Your task to perform on an android device: set the timer Image 0: 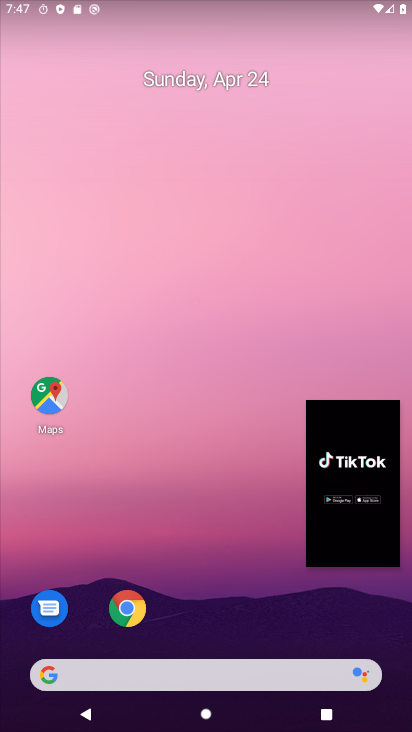
Step 0: drag from (154, 513) to (217, 106)
Your task to perform on an android device: set the timer Image 1: 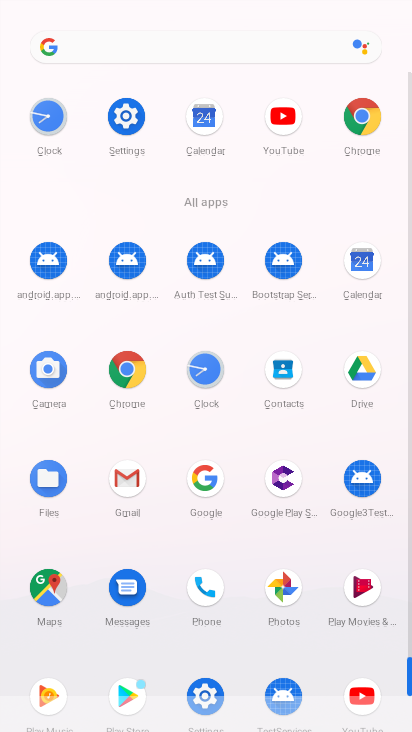
Step 1: click (204, 366)
Your task to perform on an android device: set the timer Image 2: 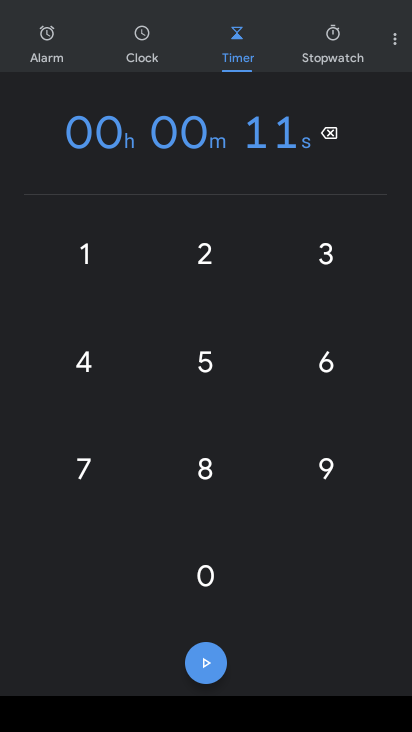
Step 2: click (332, 130)
Your task to perform on an android device: set the timer Image 3: 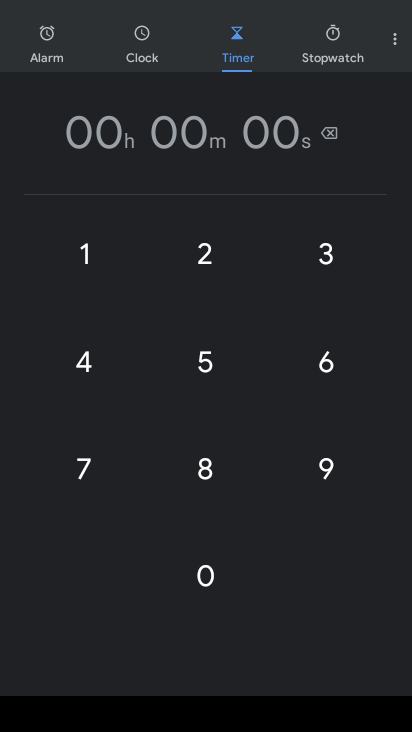
Step 3: click (86, 248)
Your task to perform on an android device: set the timer Image 4: 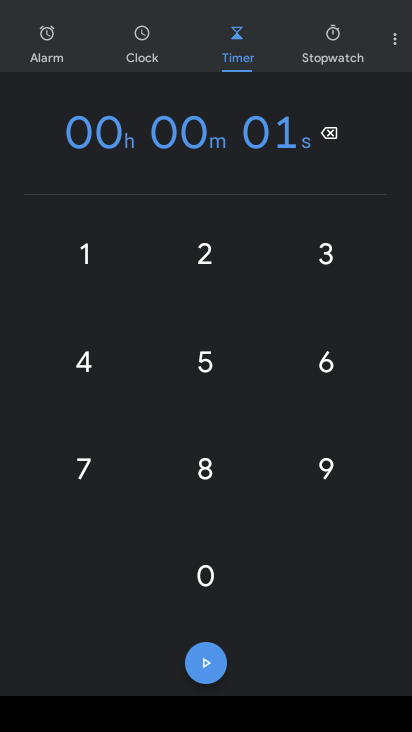
Step 4: click (203, 254)
Your task to perform on an android device: set the timer Image 5: 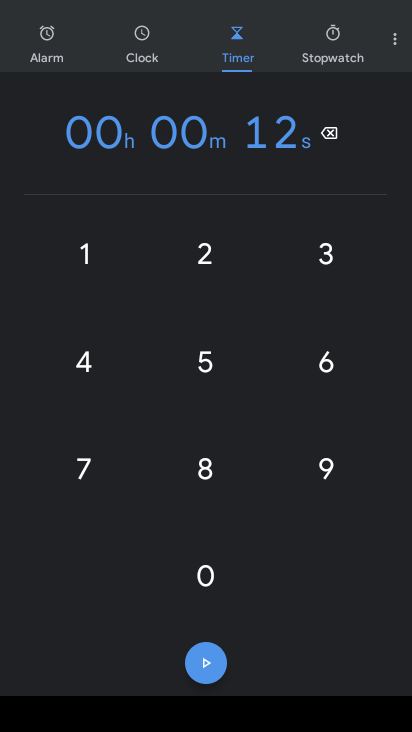
Step 5: task complete